Your task to perform on an android device: Search for pizza restaurants on Maps Image 0: 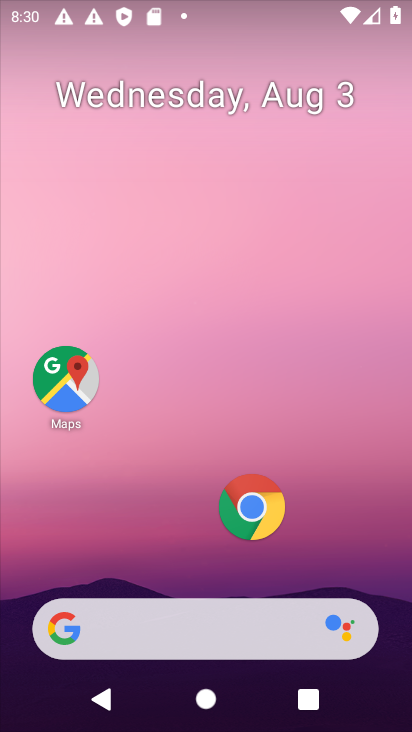
Step 0: drag from (167, 505) to (120, 91)
Your task to perform on an android device: Search for pizza restaurants on Maps Image 1: 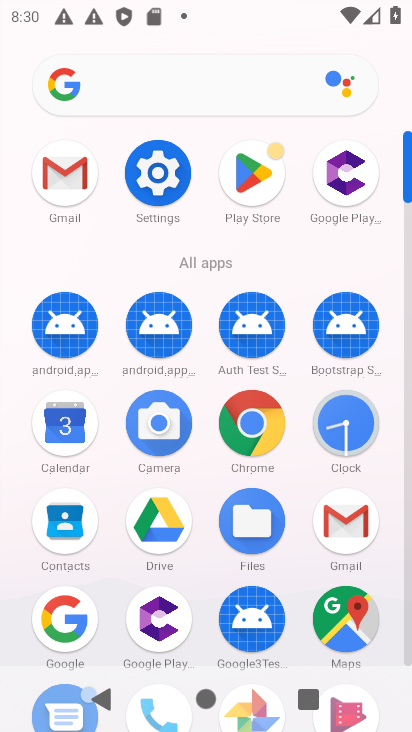
Step 1: click (334, 623)
Your task to perform on an android device: Search for pizza restaurants on Maps Image 2: 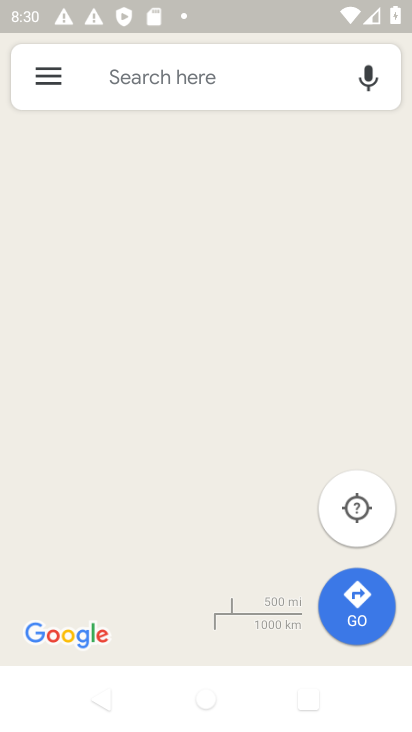
Step 2: click (119, 80)
Your task to perform on an android device: Search for pizza restaurants on Maps Image 3: 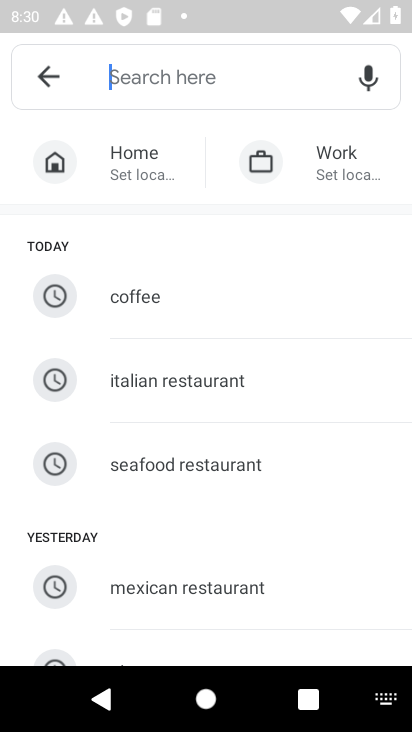
Step 3: type "pizza restaurants"
Your task to perform on an android device: Search for pizza restaurants on Maps Image 4: 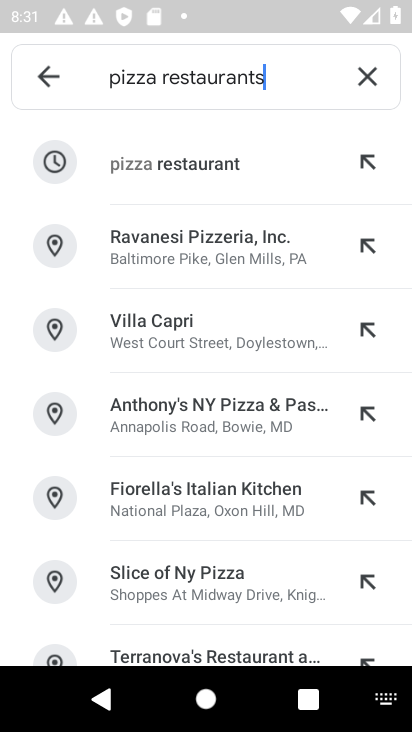
Step 4: click (214, 173)
Your task to perform on an android device: Search for pizza restaurants on Maps Image 5: 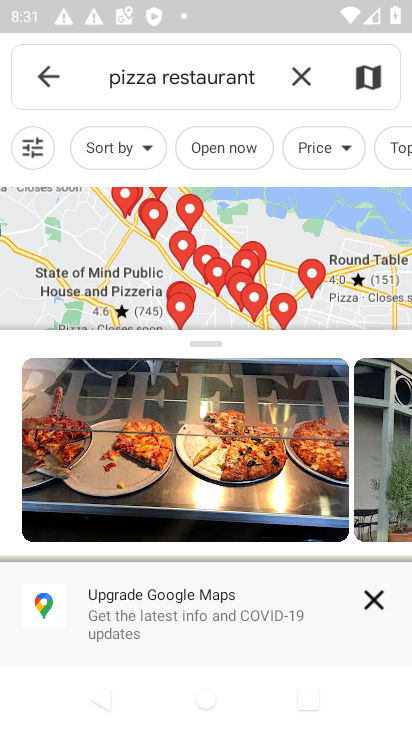
Step 5: task complete